Your task to perform on an android device: Go to network settings Image 0: 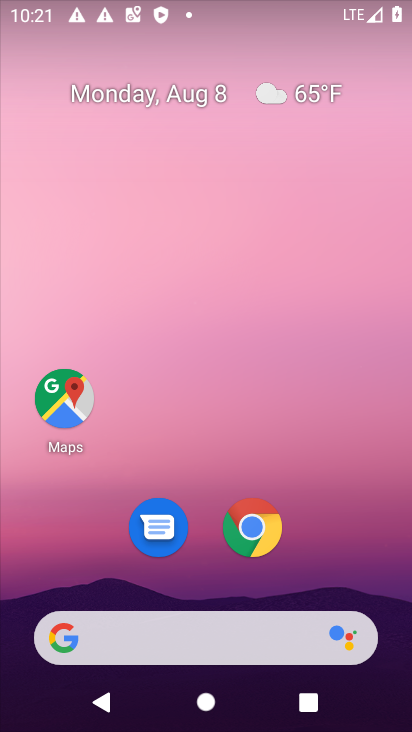
Step 0: drag from (380, 669) to (371, 149)
Your task to perform on an android device: Go to network settings Image 1: 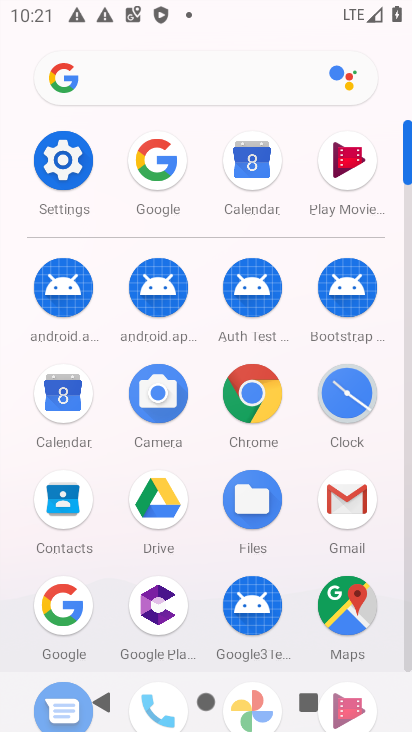
Step 1: click (57, 159)
Your task to perform on an android device: Go to network settings Image 2: 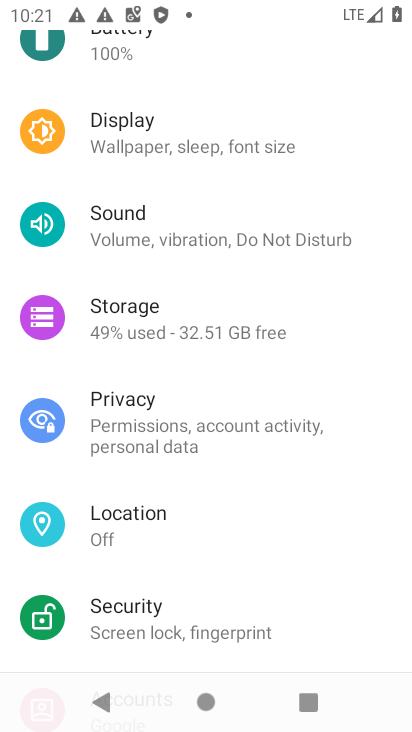
Step 2: drag from (299, 110) to (296, 449)
Your task to perform on an android device: Go to network settings Image 3: 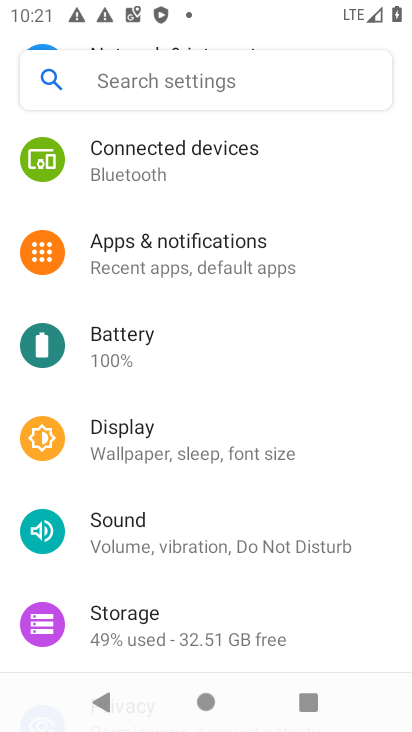
Step 3: drag from (283, 216) to (295, 443)
Your task to perform on an android device: Go to network settings Image 4: 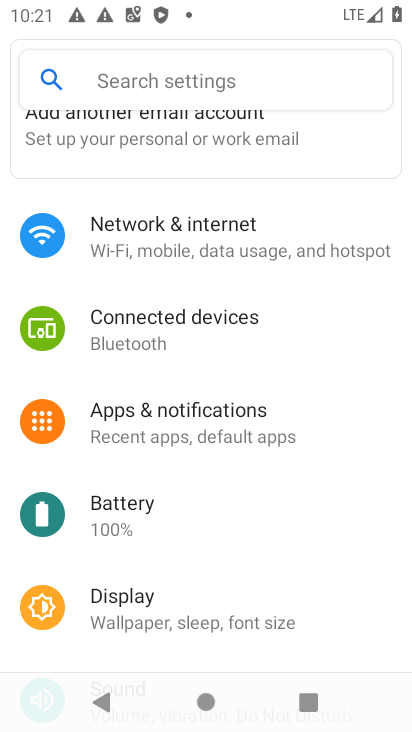
Step 4: click (171, 232)
Your task to perform on an android device: Go to network settings Image 5: 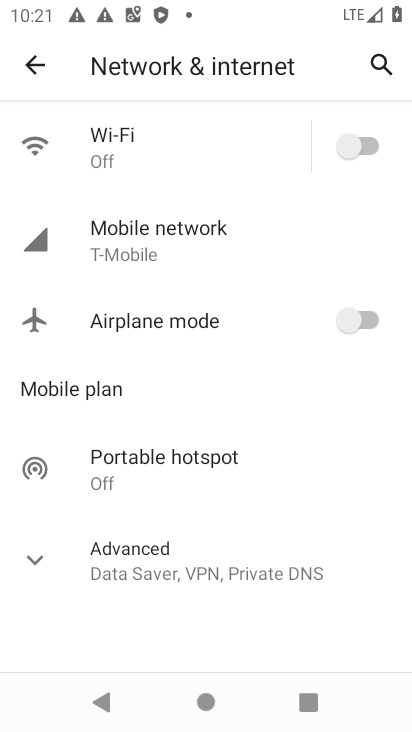
Step 5: click (160, 239)
Your task to perform on an android device: Go to network settings Image 6: 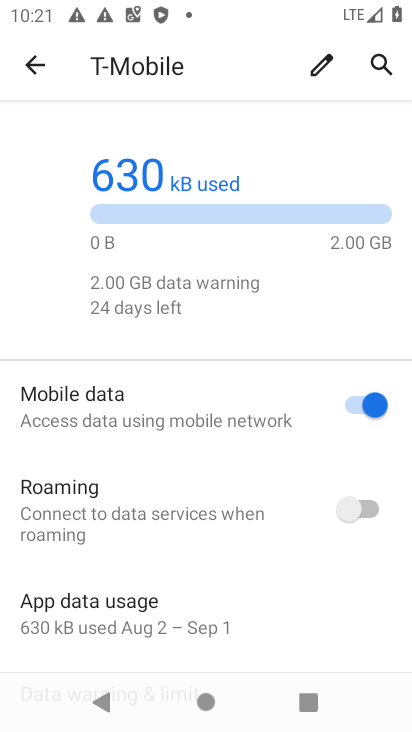
Step 6: task complete